Your task to perform on an android device: Open maps Image 0: 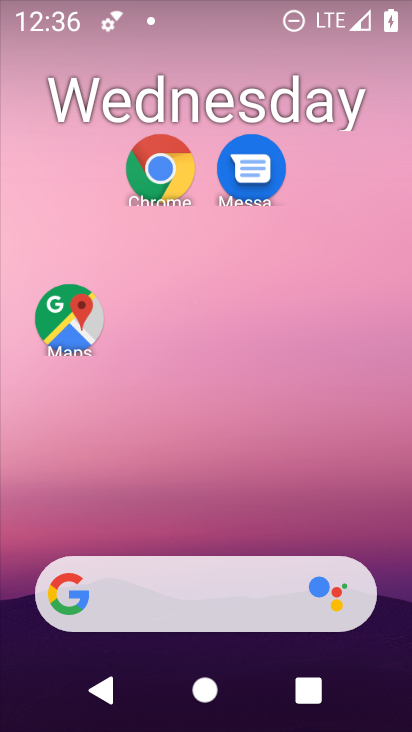
Step 0: drag from (208, 443) to (188, 133)
Your task to perform on an android device: Open maps Image 1: 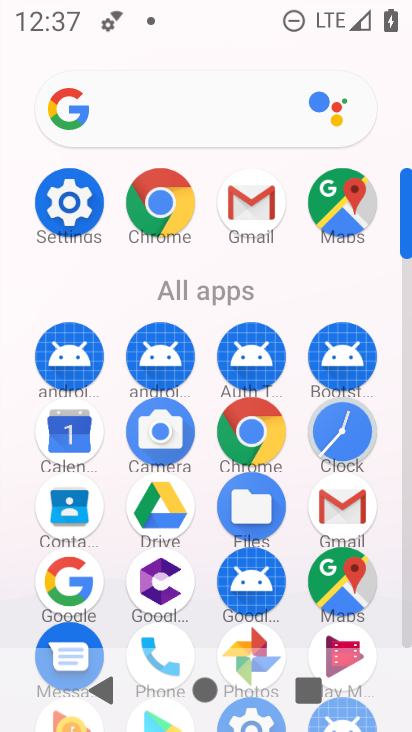
Step 1: click (338, 195)
Your task to perform on an android device: Open maps Image 2: 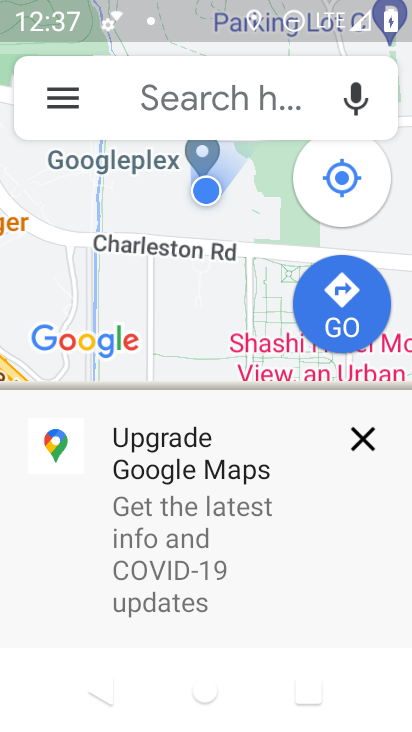
Step 2: click (358, 441)
Your task to perform on an android device: Open maps Image 3: 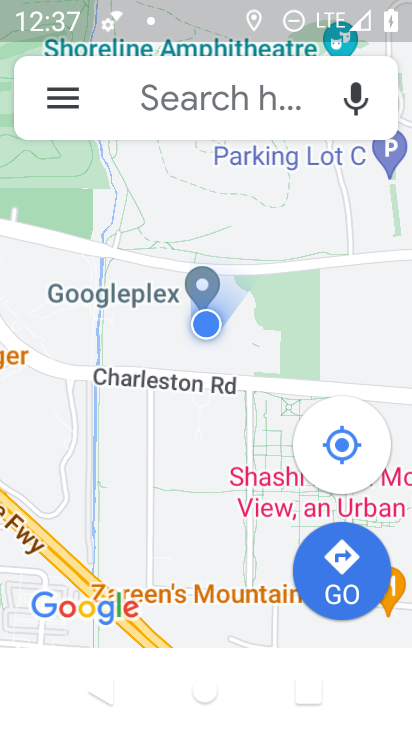
Step 3: task complete